Your task to perform on an android device: turn off location history Image 0: 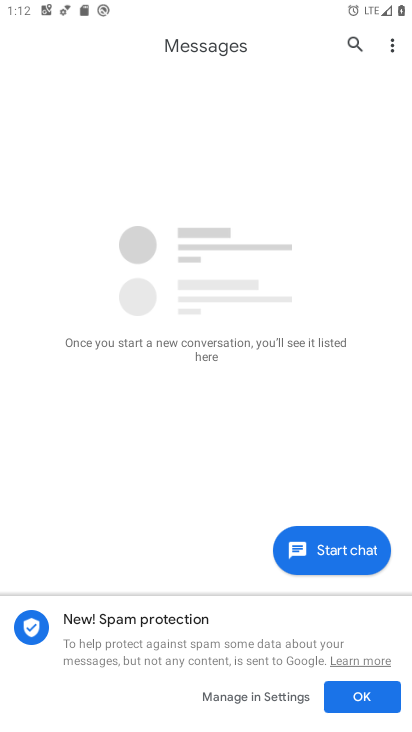
Step 0: press home button
Your task to perform on an android device: turn off location history Image 1: 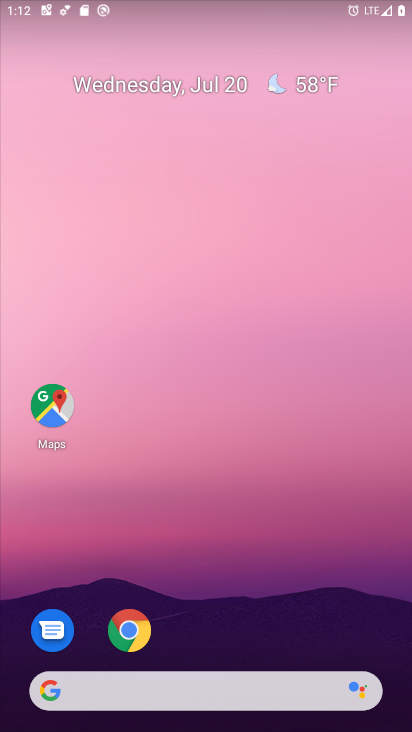
Step 1: drag from (231, 618) to (184, 121)
Your task to perform on an android device: turn off location history Image 2: 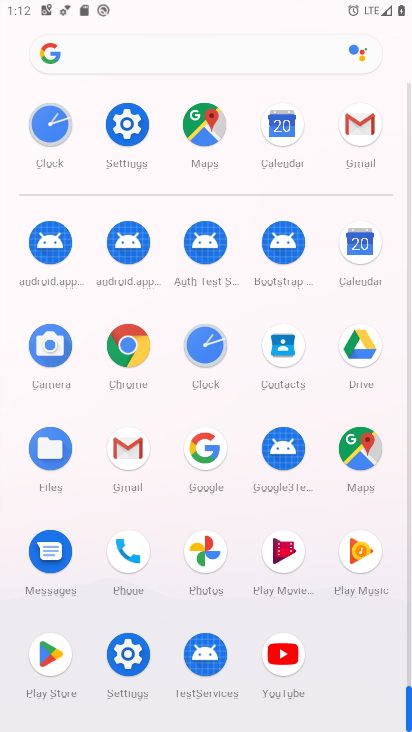
Step 2: click (125, 154)
Your task to perform on an android device: turn off location history Image 3: 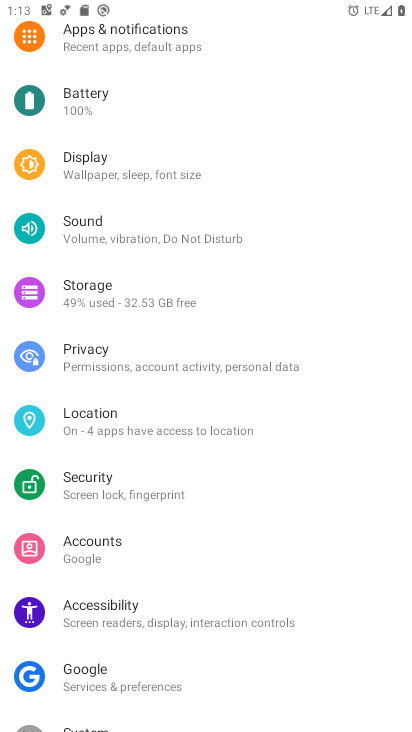
Step 3: click (115, 425)
Your task to perform on an android device: turn off location history Image 4: 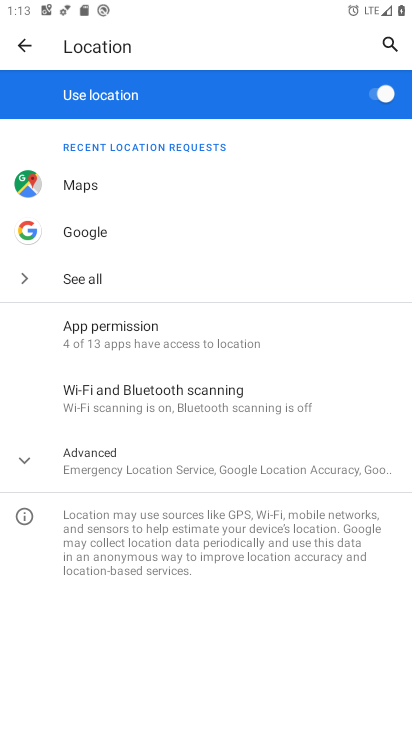
Step 4: click (96, 455)
Your task to perform on an android device: turn off location history Image 5: 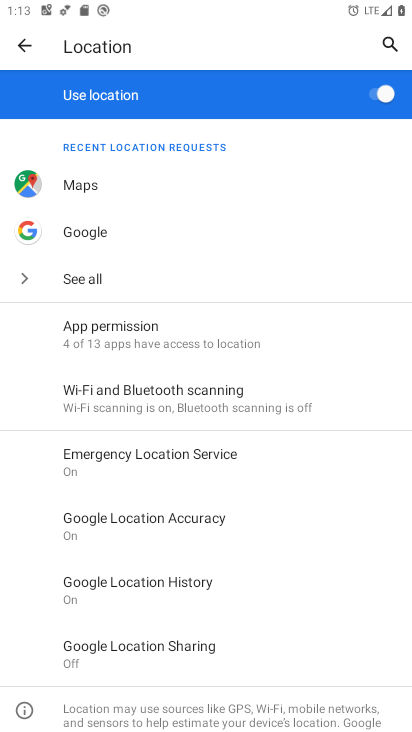
Step 5: click (127, 587)
Your task to perform on an android device: turn off location history Image 6: 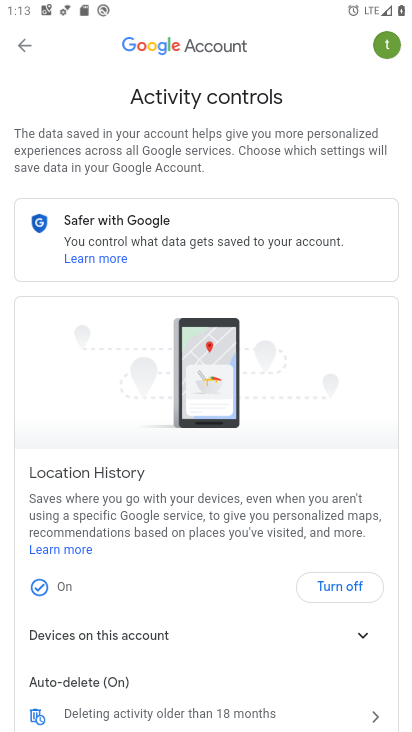
Step 6: click (309, 593)
Your task to perform on an android device: turn off location history Image 7: 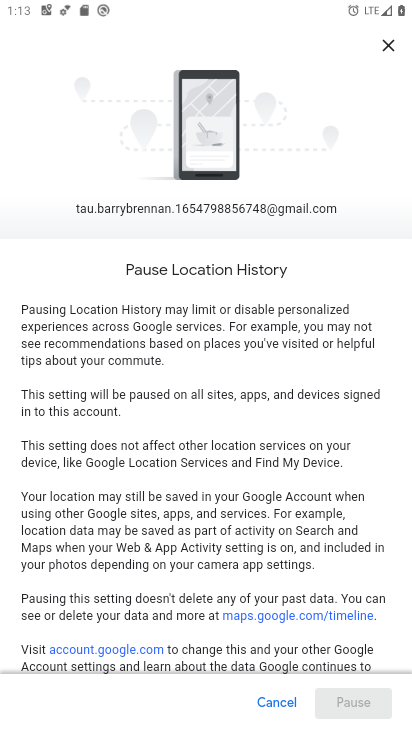
Step 7: drag from (297, 579) to (283, 5)
Your task to perform on an android device: turn off location history Image 8: 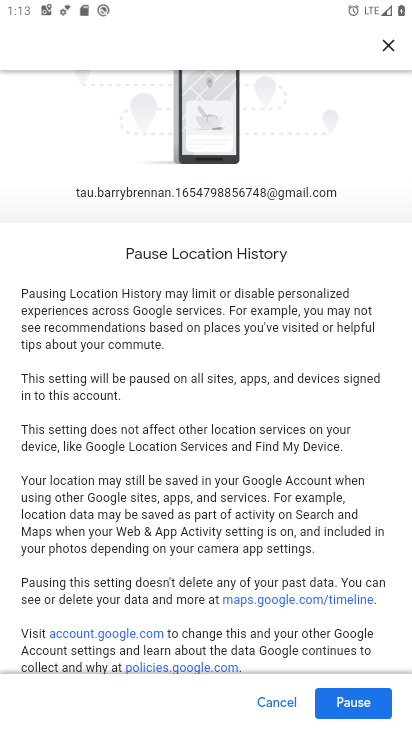
Step 8: click (369, 718)
Your task to perform on an android device: turn off location history Image 9: 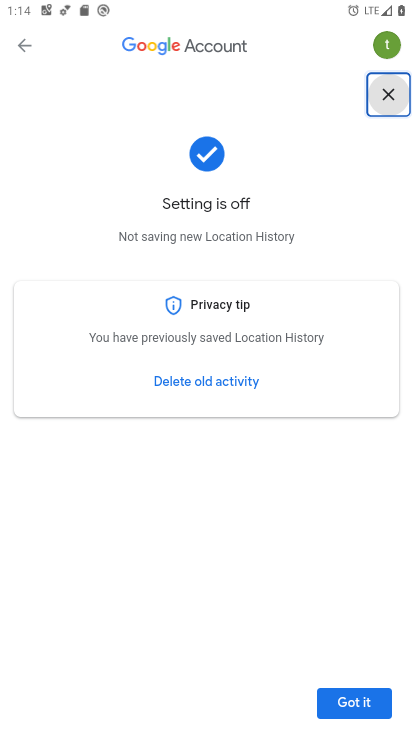
Step 9: click (373, 708)
Your task to perform on an android device: turn off location history Image 10: 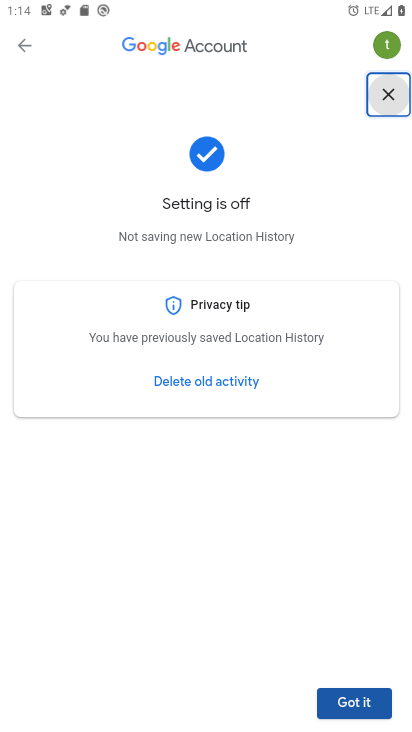
Step 10: task complete